Your task to perform on an android device: Open calendar and show me the first week of next month Image 0: 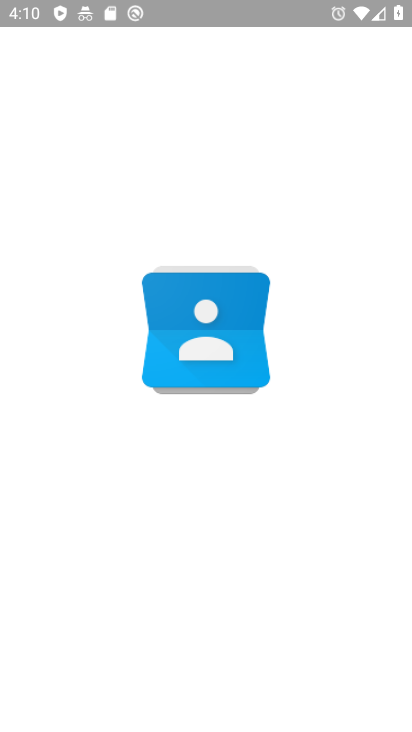
Step 0: drag from (274, 707) to (151, 8)
Your task to perform on an android device: Open calendar and show me the first week of next month Image 1: 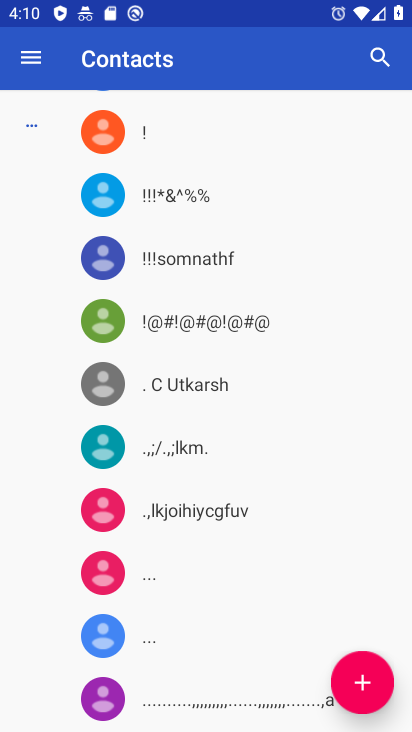
Step 1: press home button
Your task to perform on an android device: Open calendar and show me the first week of next month Image 2: 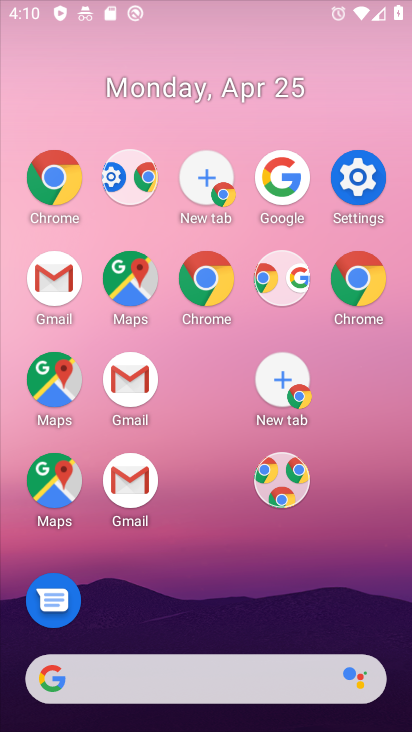
Step 2: drag from (224, 616) to (120, 0)
Your task to perform on an android device: Open calendar and show me the first week of next month Image 3: 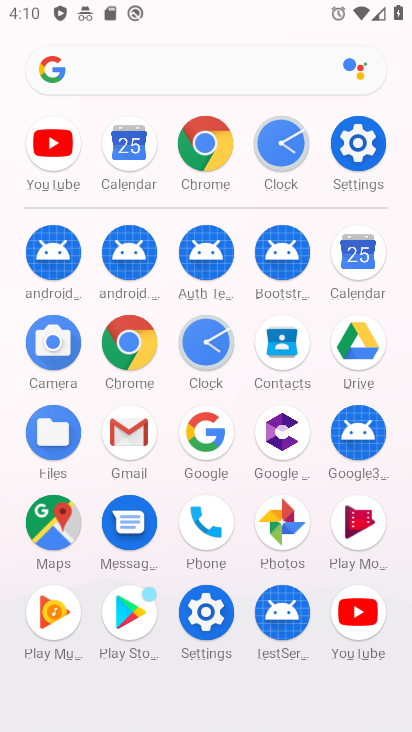
Step 3: click (357, 238)
Your task to perform on an android device: Open calendar and show me the first week of next month Image 4: 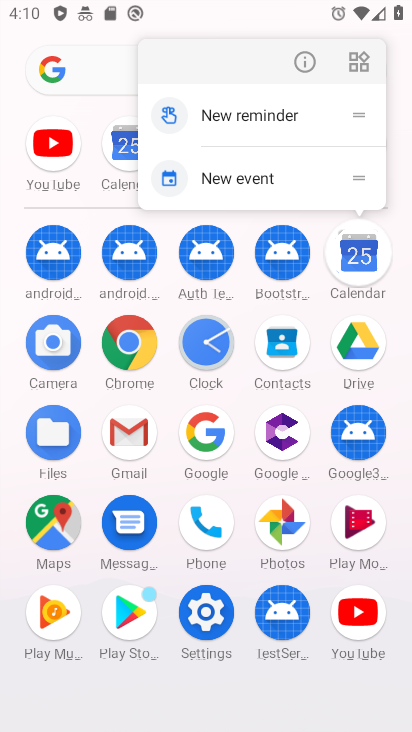
Step 4: click (359, 249)
Your task to perform on an android device: Open calendar and show me the first week of next month Image 5: 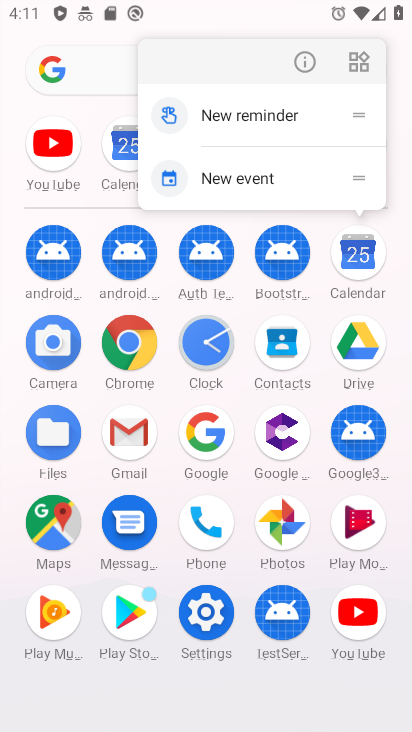
Step 5: click (359, 249)
Your task to perform on an android device: Open calendar and show me the first week of next month Image 6: 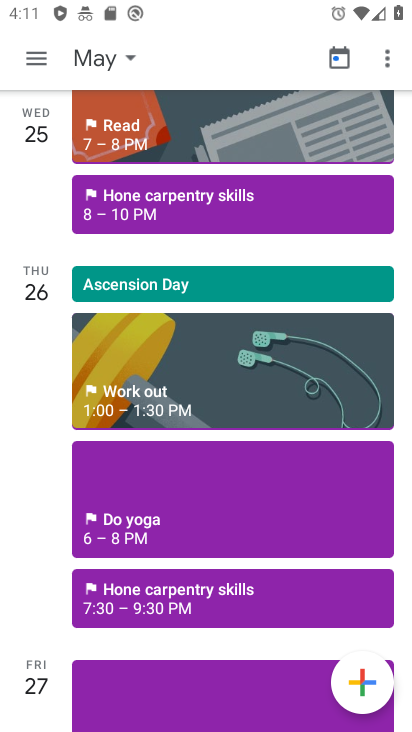
Step 6: drag from (127, 59) to (106, 242)
Your task to perform on an android device: Open calendar and show me the first week of next month Image 7: 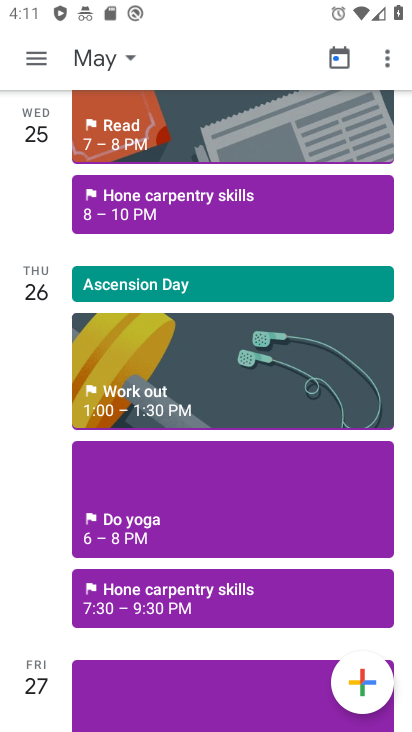
Step 7: drag from (129, 59) to (129, 299)
Your task to perform on an android device: Open calendar and show me the first week of next month Image 8: 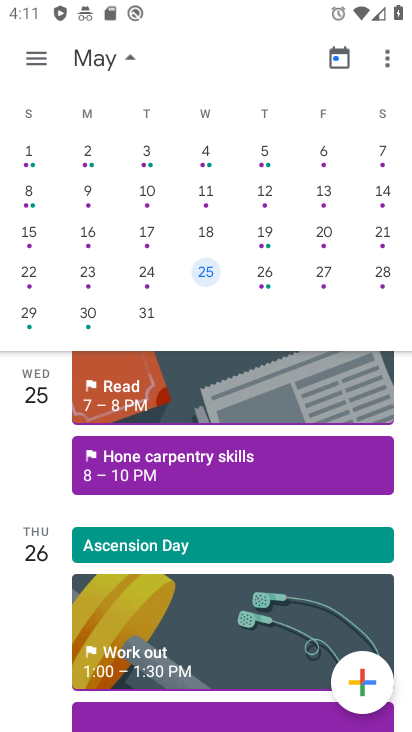
Step 8: click (86, 148)
Your task to perform on an android device: Open calendar and show me the first week of next month Image 9: 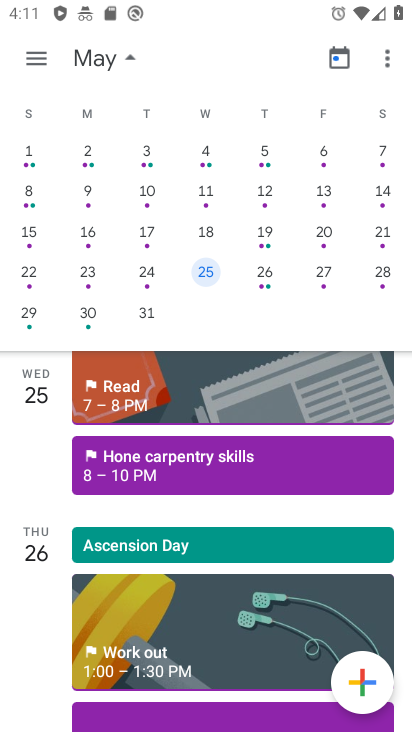
Step 9: click (83, 148)
Your task to perform on an android device: Open calendar and show me the first week of next month Image 10: 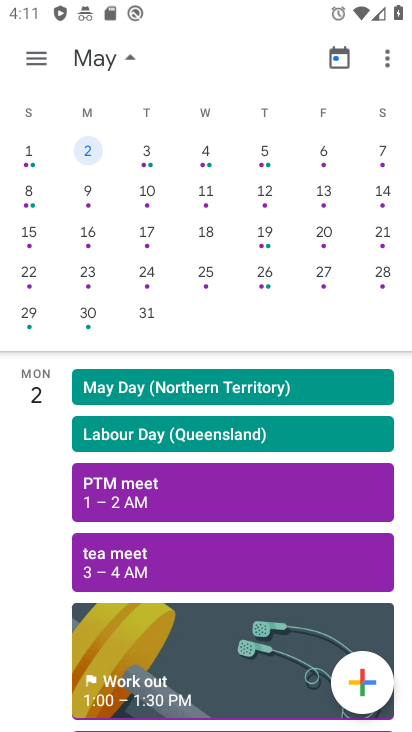
Step 10: click (81, 148)
Your task to perform on an android device: Open calendar and show me the first week of next month Image 11: 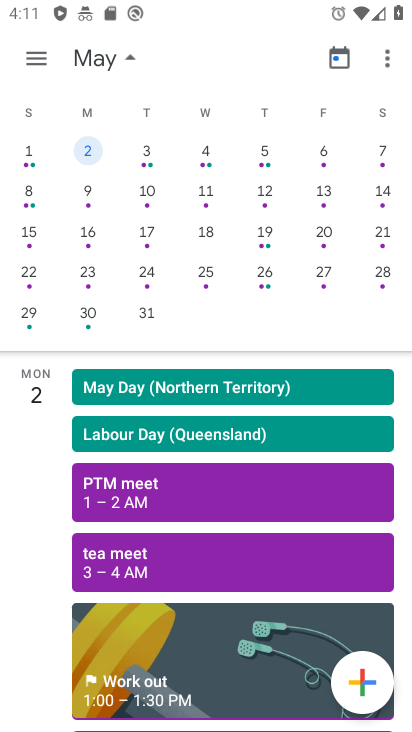
Step 11: task complete